Your task to perform on an android device: toggle data saver in the chrome app Image 0: 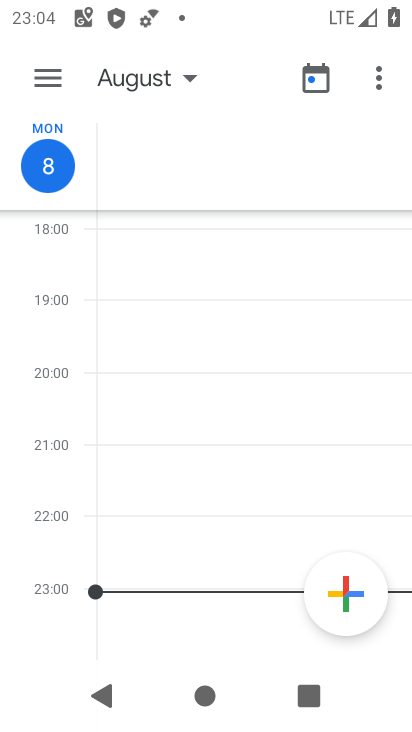
Step 0: press home button
Your task to perform on an android device: toggle data saver in the chrome app Image 1: 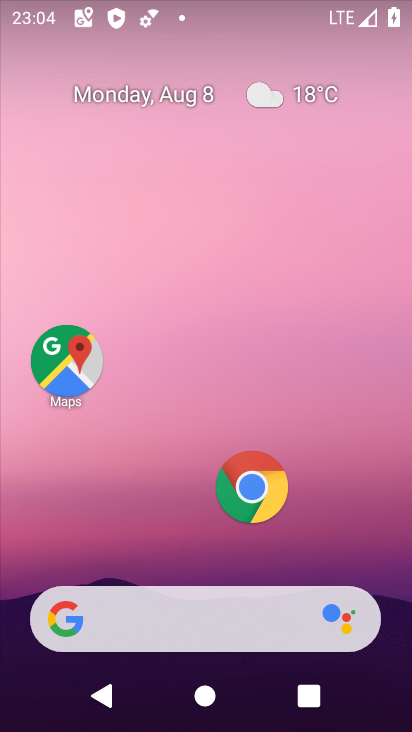
Step 1: click (255, 481)
Your task to perform on an android device: toggle data saver in the chrome app Image 2: 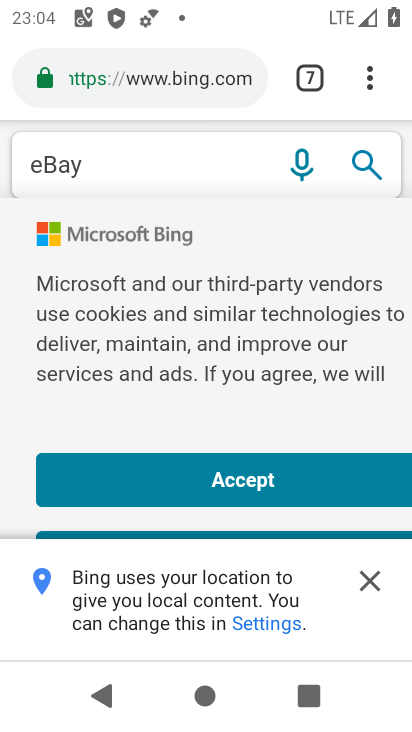
Step 2: click (369, 86)
Your task to perform on an android device: toggle data saver in the chrome app Image 3: 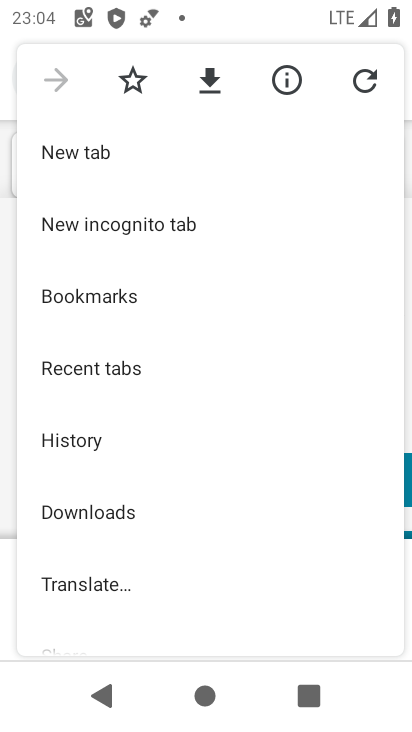
Step 3: drag from (117, 577) to (116, 258)
Your task to perform on an android device: toggle data saver in the chrome app Image 4: 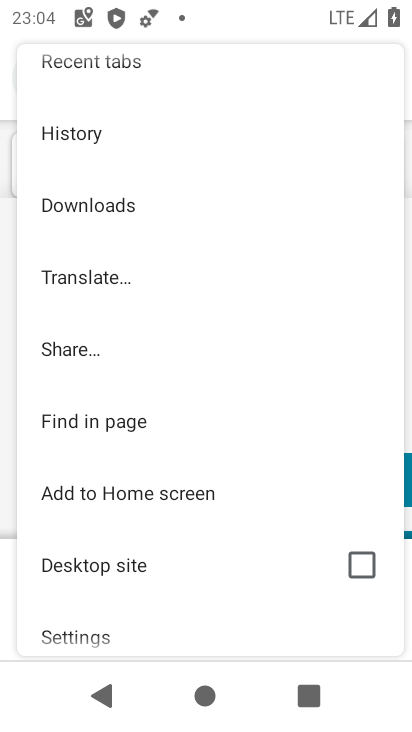
Step 4: click (78, 631)
Your task to perform on an android device: toggle data saver in the chrome app Image 5: 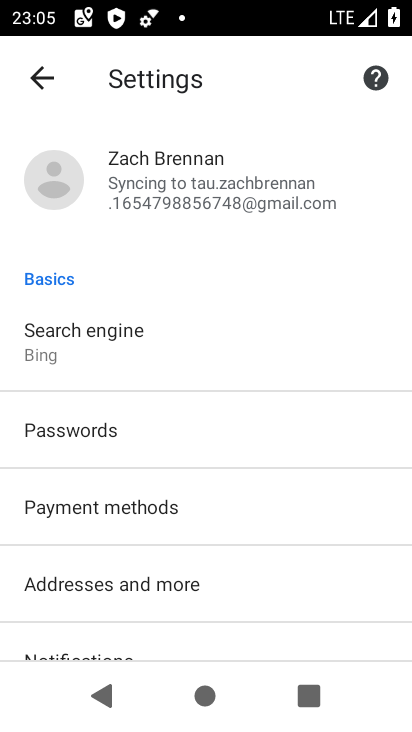
Step 5: drag from (102, 623) to (94, 297)
Your task to perform on an android device: toggle data saver in the chrome app Image 6: 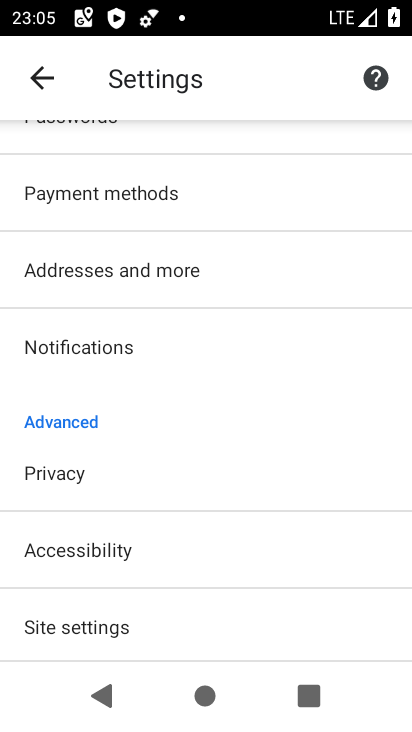
Step 6: drag from (155, 622) to (149, 290)
Your task to perform on an android device: toggle data saver in the chrome app Image 7: 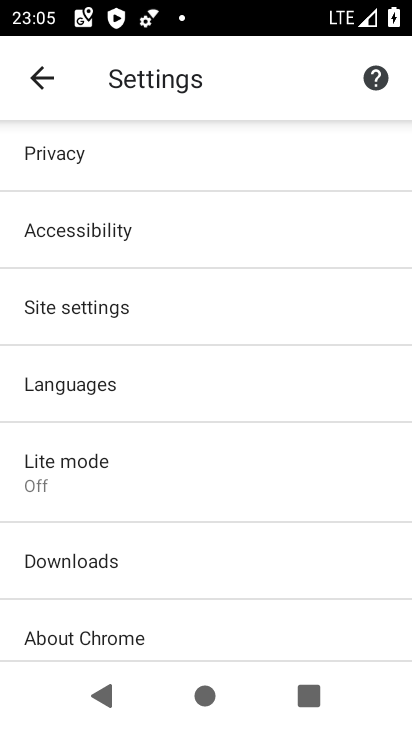
Step 7: click (77, 475)
Your task to perform on an android device: toggle data saver in the chrome app Image 8: 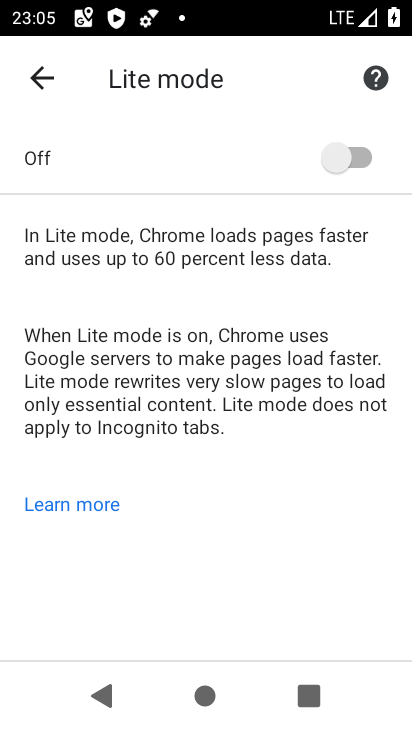
Step 8: click (351, 152)
Your task to perform on an android device: toggle data saver in the chrome app Image 9: 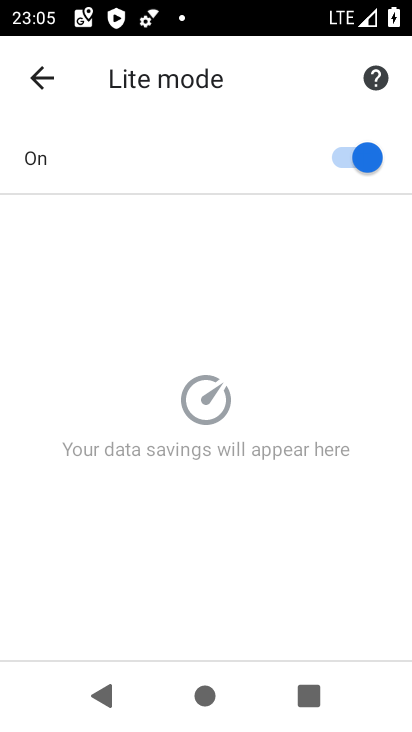
Step 9: task complete